Your task to perform on an android device: What's the weather going to be this weekend? Image 0: 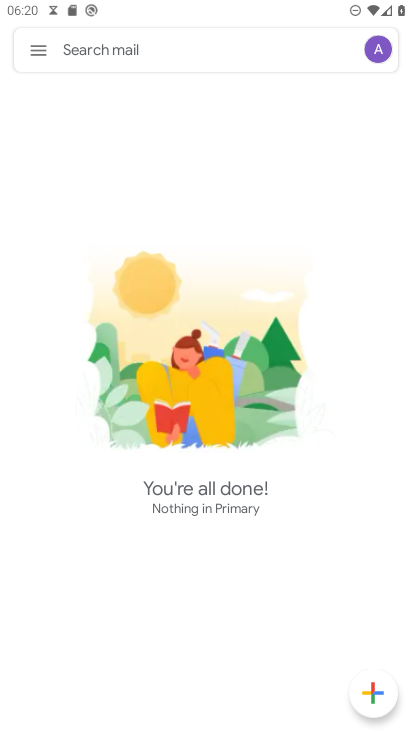
Step 0: press home button
Your task to perform on an android device: What's the weather going to be this weekend? Image 1: 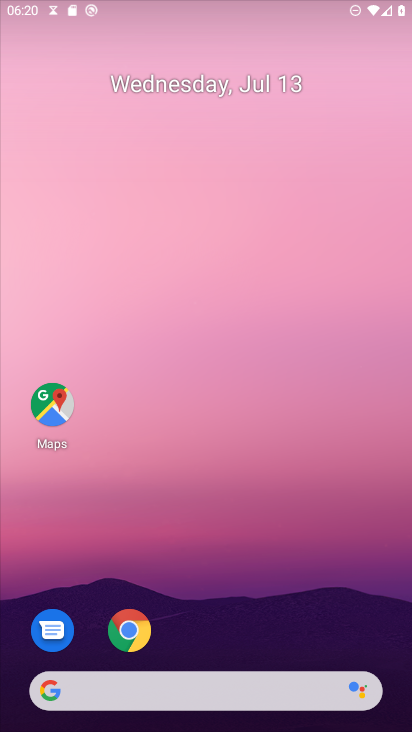
Step 1: drag from (304, 684) to (300, 72)
Your task to perform on an android device: What's the weather going to be this weekend? Image 2: 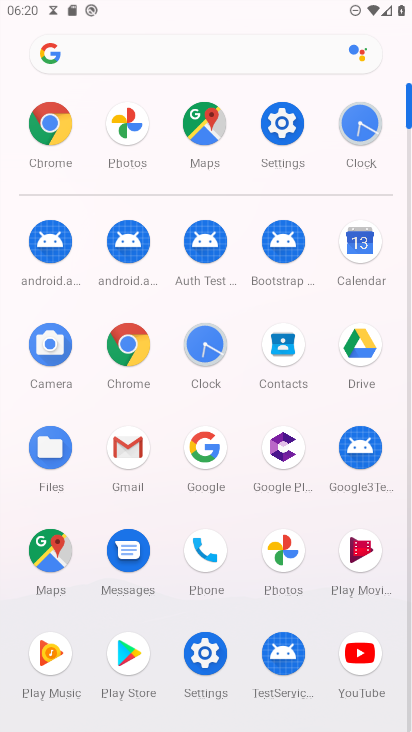
Step 2: click (137, 361)
Your task to perform on an android device: What's the weather going to be this weekend? Image 3: 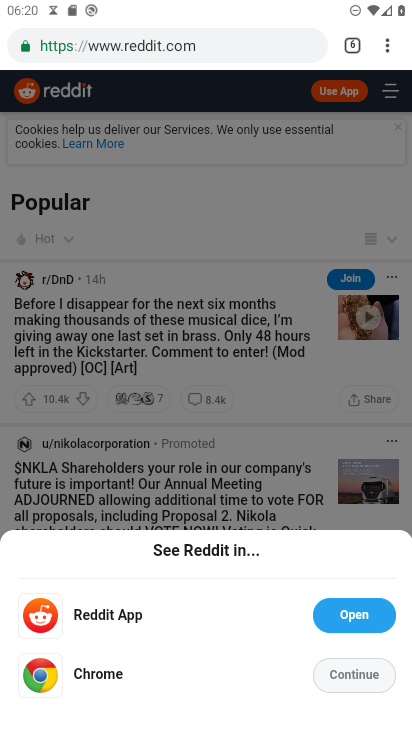
Step 3: click (137, 47)
Your task to perform on an android device: What's the weather going to be this weekend? Image 4: 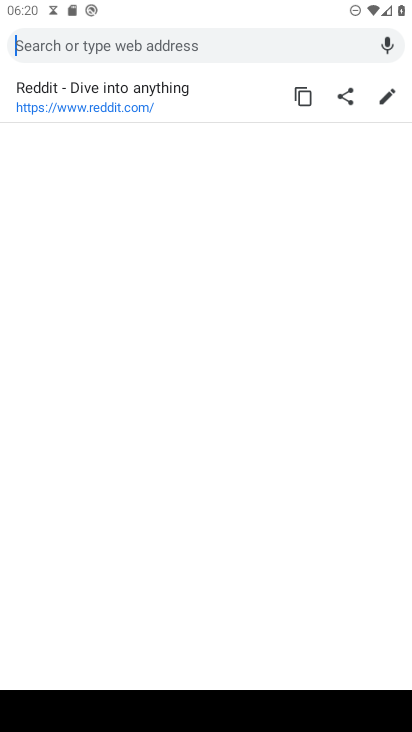
Step 4: type "what the weather going to this weekend?"
Your task to perform on an android device: What's the weather going to be this weekend? Image 5: 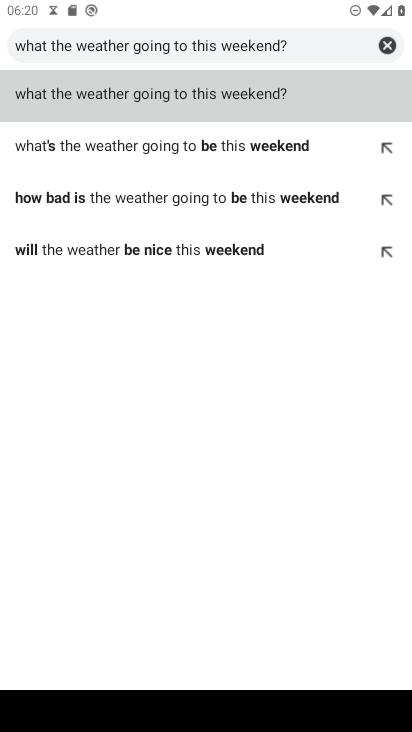
Step 5: click (231, 80)
Your task to perform on an android device: What's the weather going to be this weekend? Image 6: 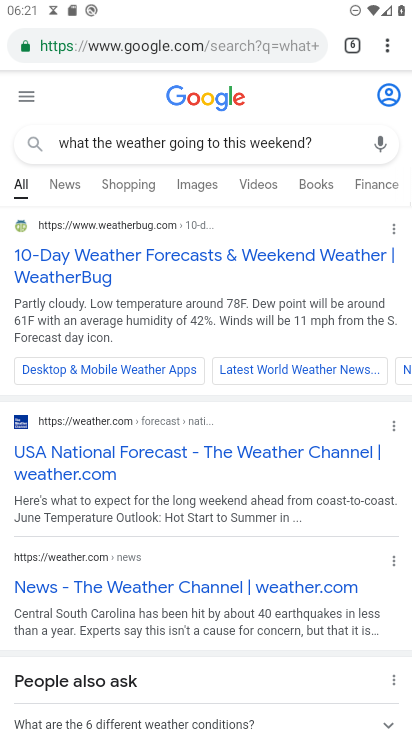
Step 6: task complete